Your task to perform on an android device: set an alarm Image 0: 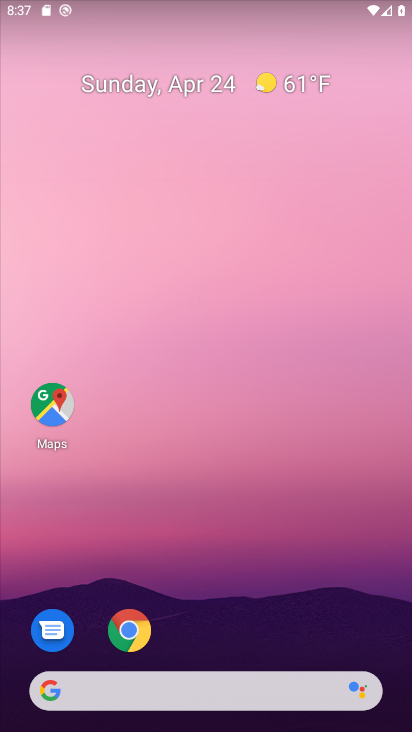
Step 0: drag from (352, 621) to (361, 126)
Your task to perform on an android device: set an alarm Image 1: 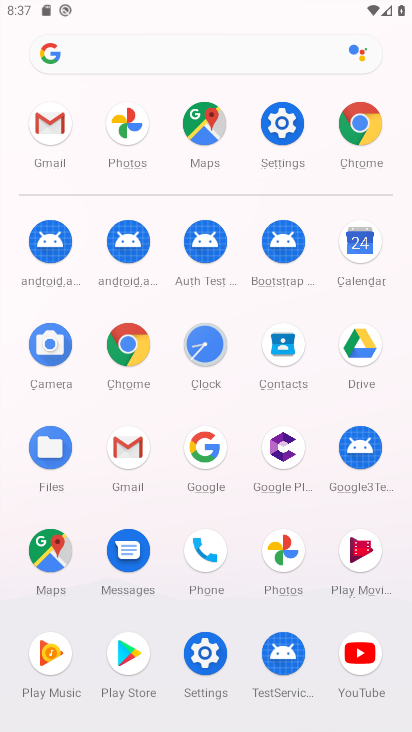
Step 1: click (205, 350)
Your task to perform on an android device: set an alarm Image 2: 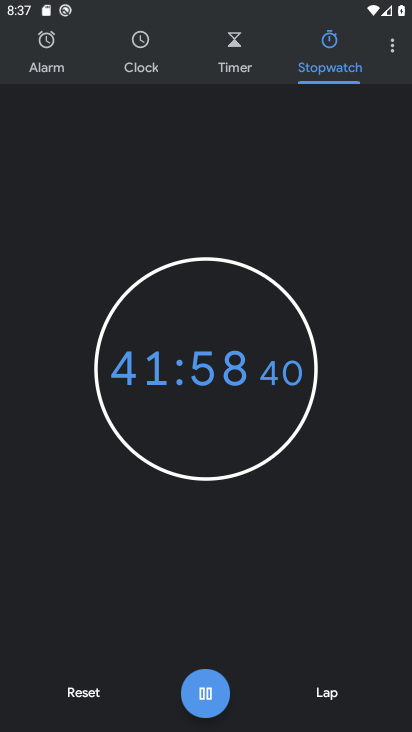
Step 2: click (42, 53)
Your task to perform on an android device: set an alarm Image 3: 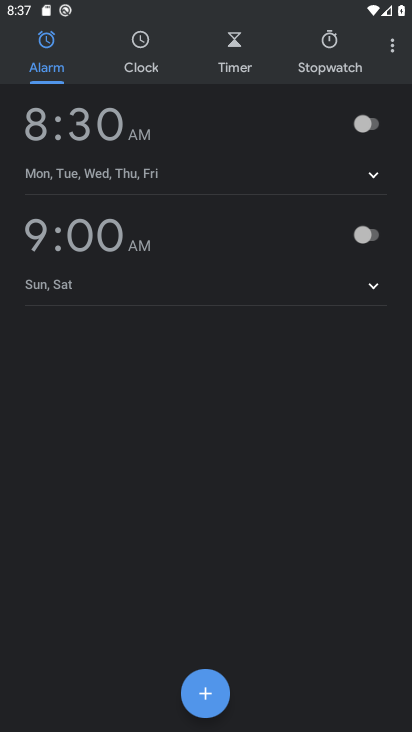
Step 3: click (211, 694)
Your task to perform on an android device: set an alarm Image 4: 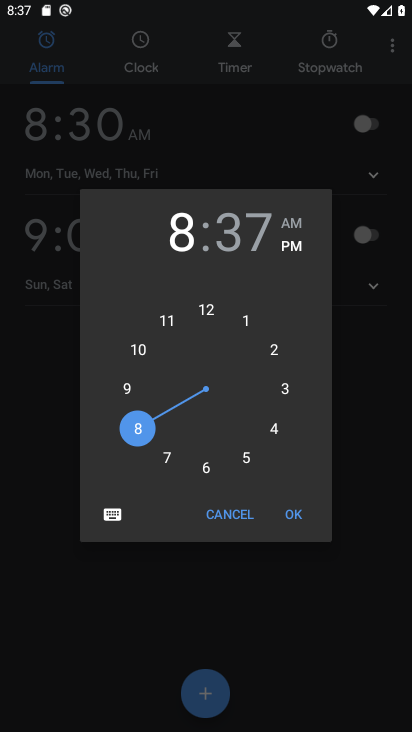
Step 4: click (299, 517)
Your task to perform on an android device: set an alarm Image 5: 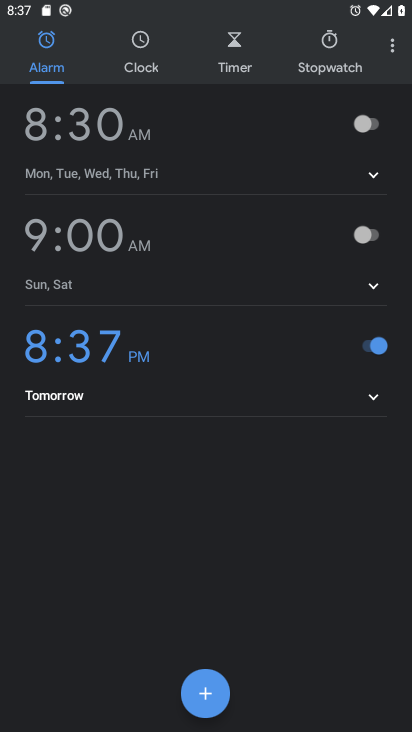
Step 5: task complete